Your task to perform on an android device: Add macbook pro to the cart on walmart.com Image 0: 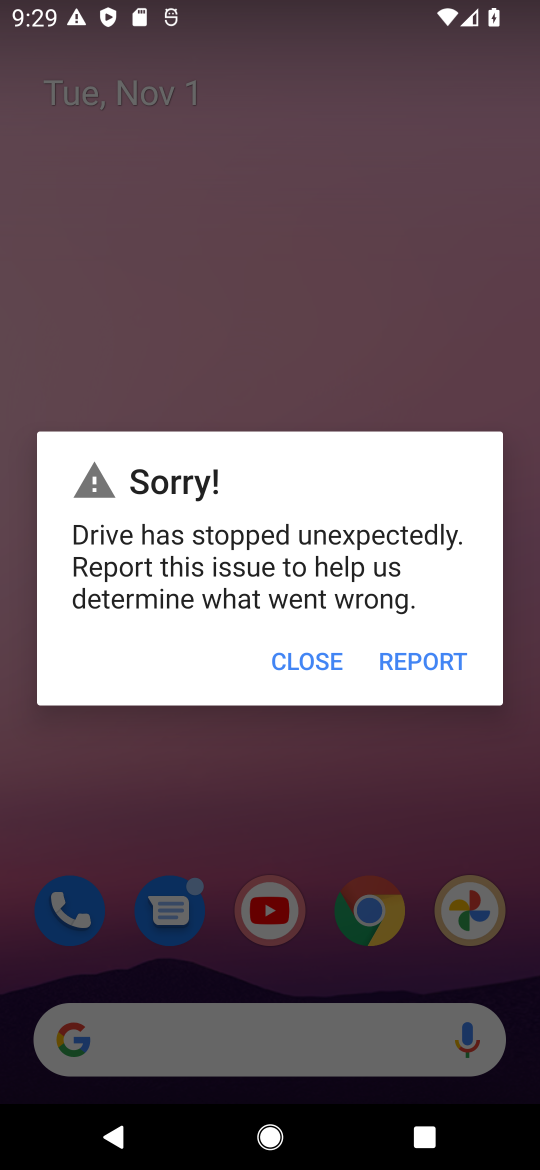
Step 0: press home button
Your task to perform on an android device: Add macbook pro to the cart on walmart.com Image 1: 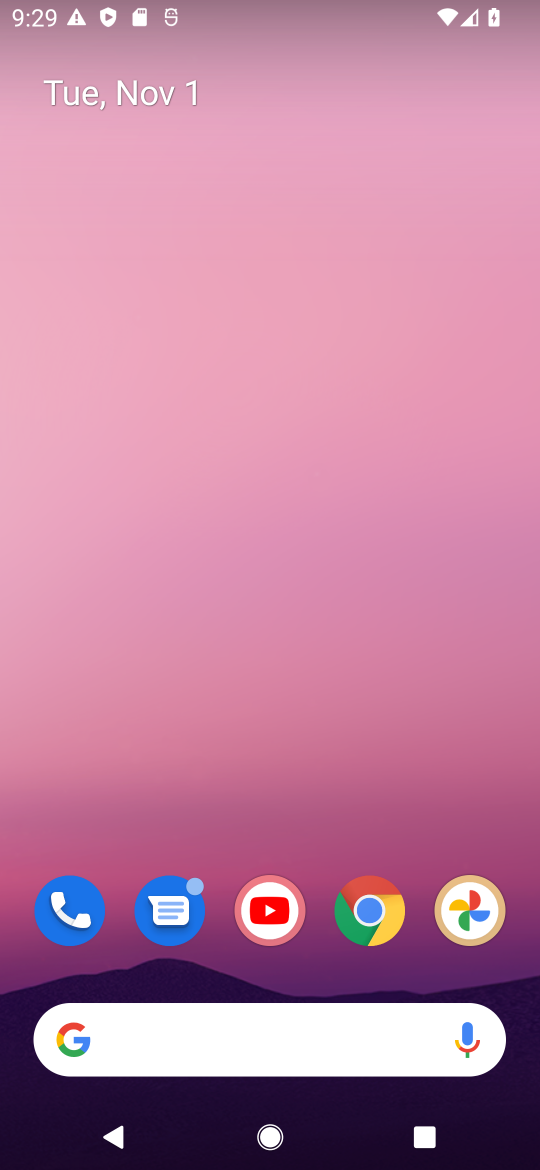
Step 1: click (400, 856)
Your task to perform on an android device: Add macbook pro to the cart on walmart.com Image 2: 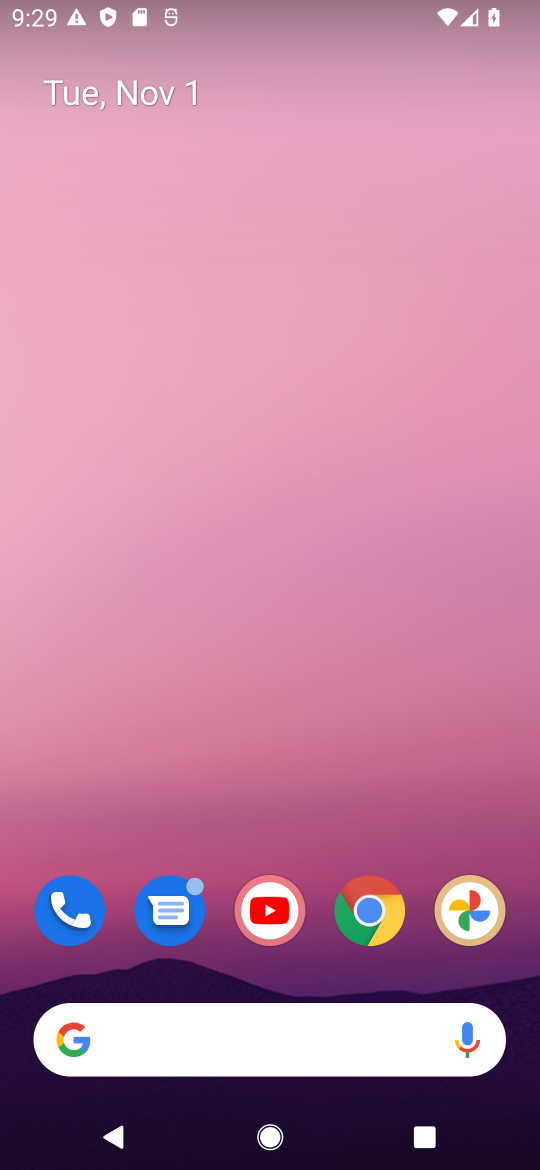
Step 2: click (373, 917)
Your task to perform on an android device: Add macbook pro to the cart on walmart.com Image 3: 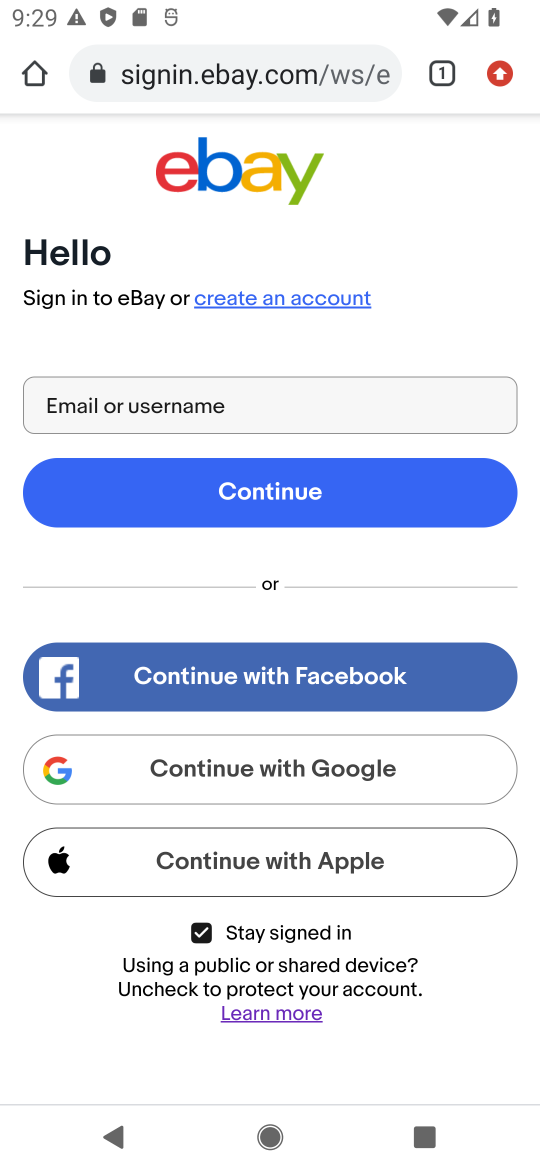
Step 3: click (206, 76)
Your task to perform on an android device: Add macbook pro to the cart on walmart.com Image 4: 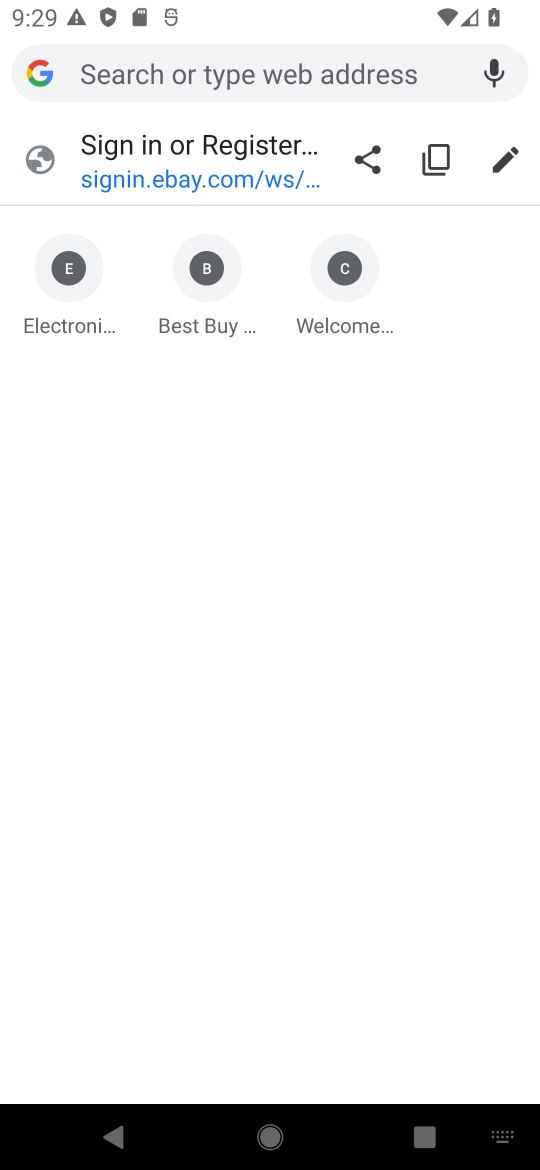
Step 4: type "walmart.com"
Your task to perform on an android device: Add macbook pro to the cart on walmart.com Image 5: 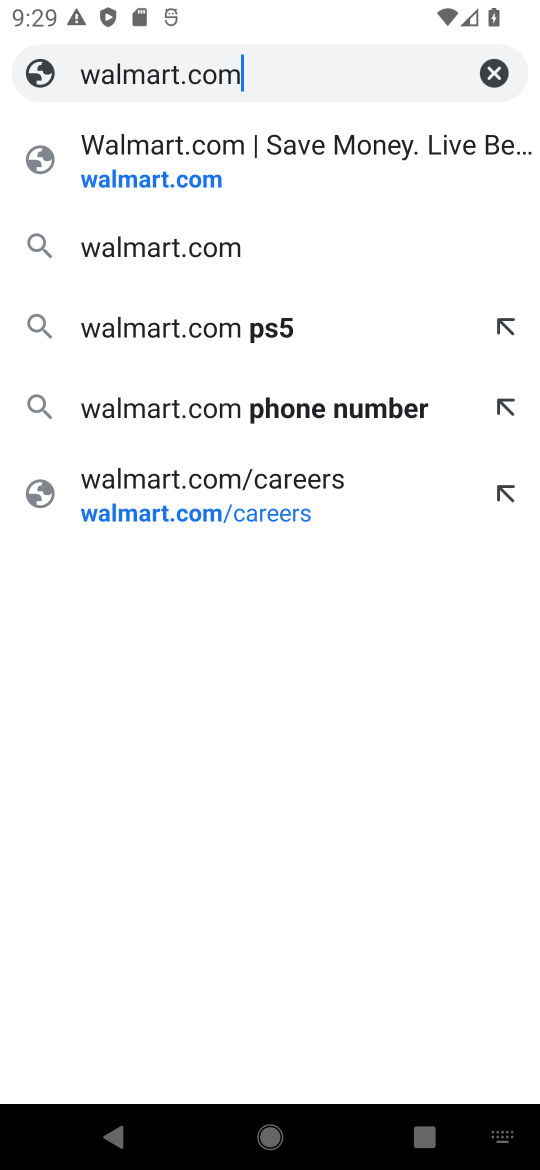
Step 5: click (122, 188)
Your task to perform on an android device: Add macbook pro to the cart on walmart.com Image 6: 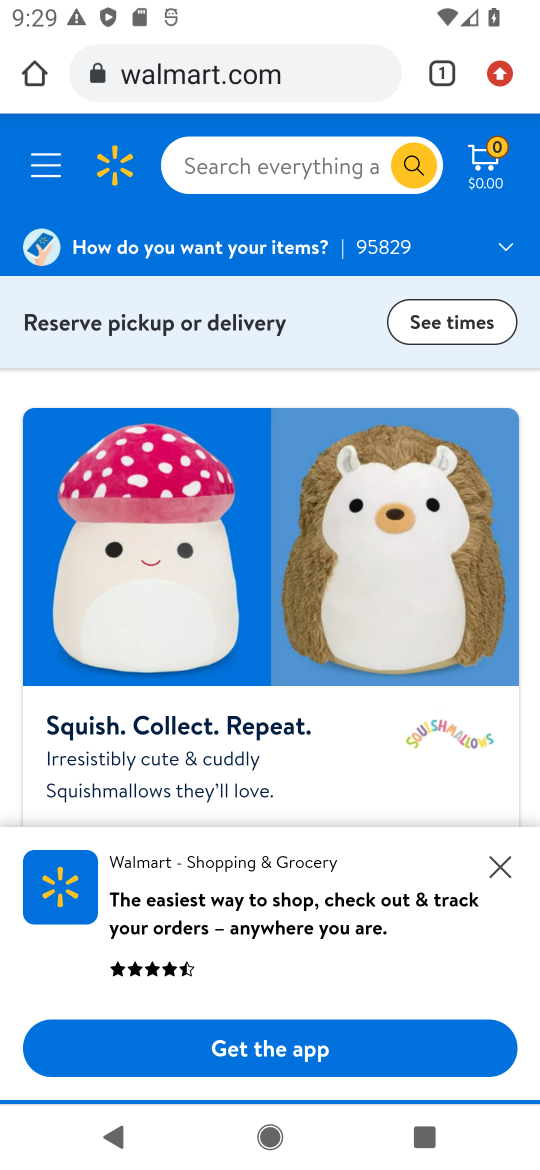
Step 6: click (235, 176)
Your task to perform on an android device: Add macbook pro to the cart on walmart.com Image 7: 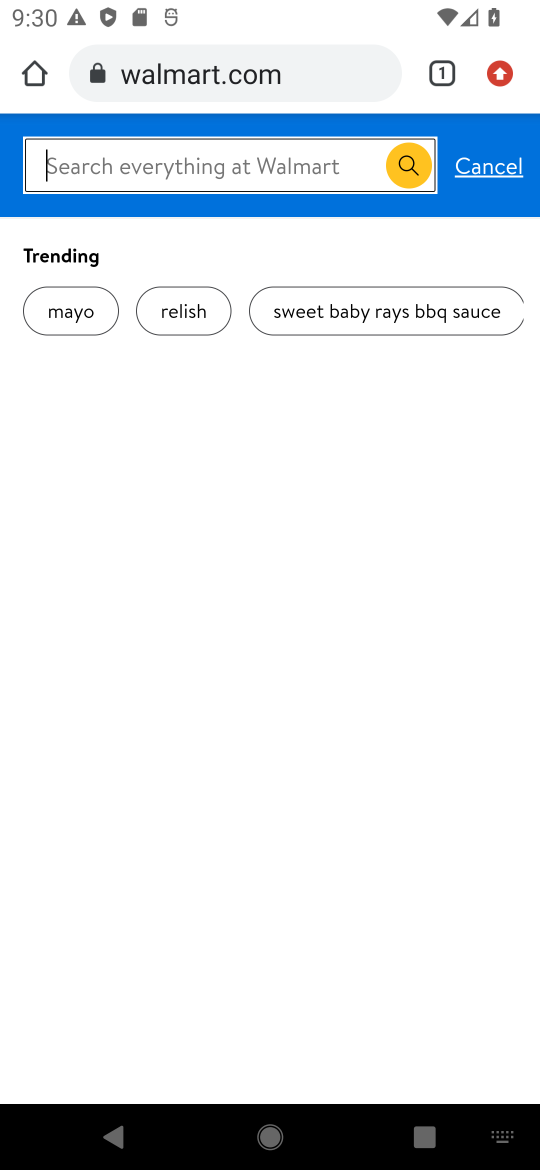
Step 7: type " macbook pro"
Your task to perform on an android device: Add macbook pro to the cart on walmart.com Image 8: 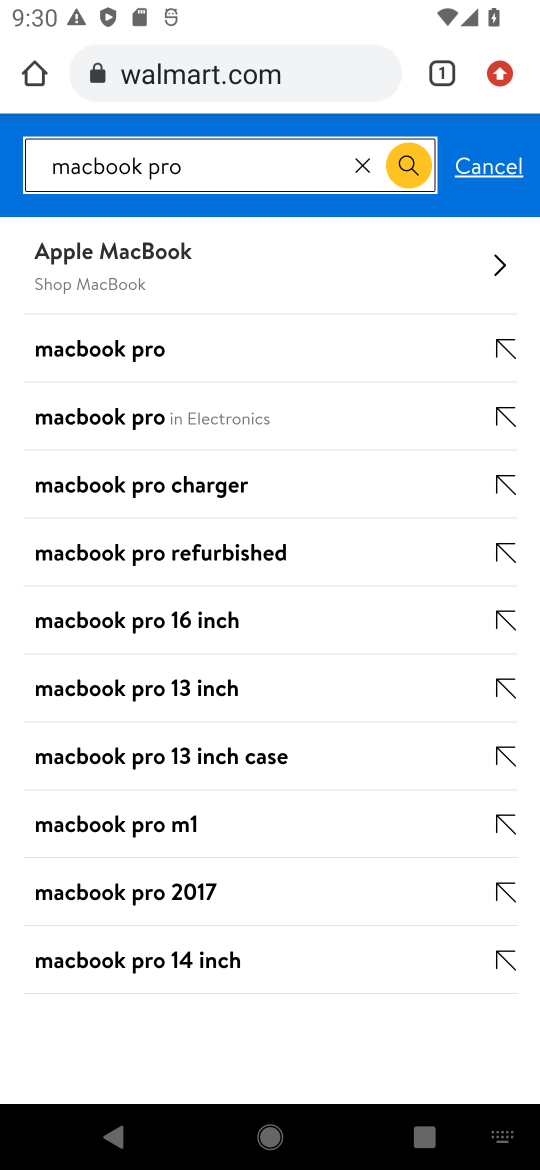
Step 8: click (140, 358)
Your task to perform on an android device: Add macbook pro to the cart on walmart.com Image 9: 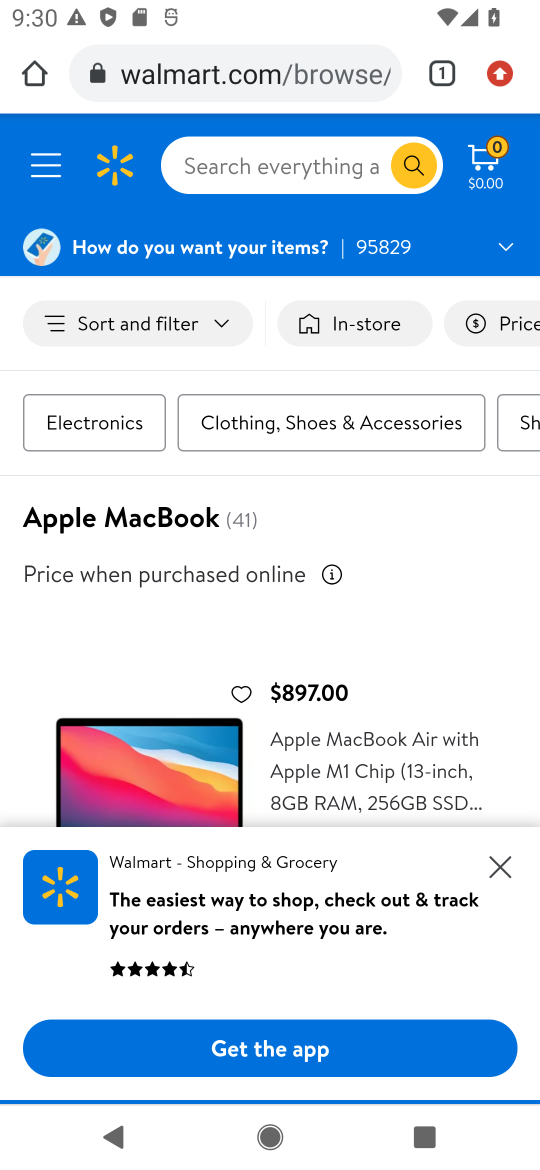
Step 9: click (477, 861)
Your task to perform on an android device: Add macbook pro to the cart on walmart.com Image 10: 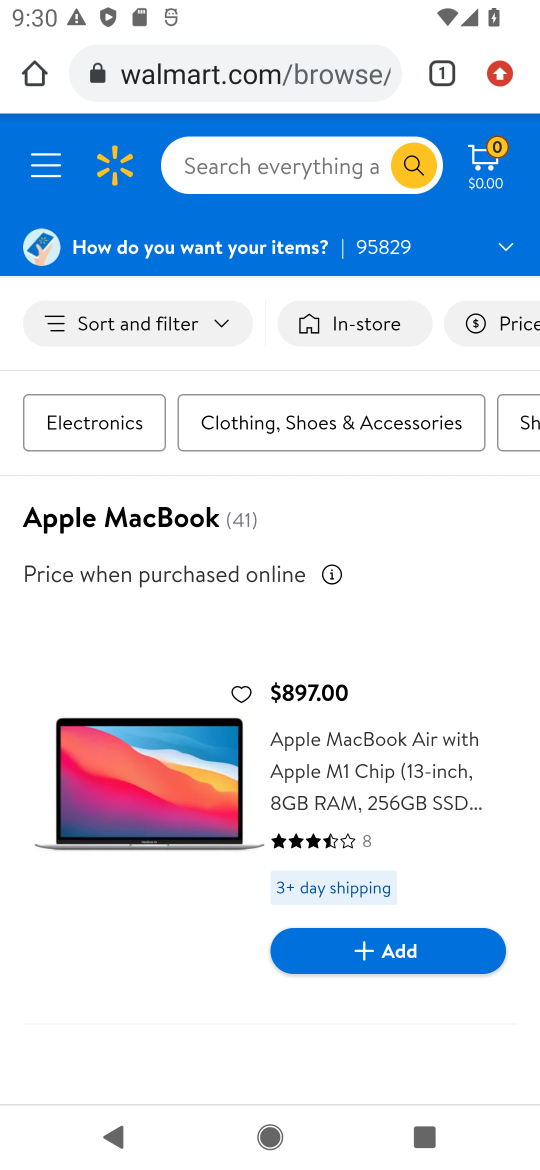
Step 10: drag from (392, 836) to (418, 586)
Your task to perform on an android device: Add macbook pro to the cart on walmart.com Image 11: 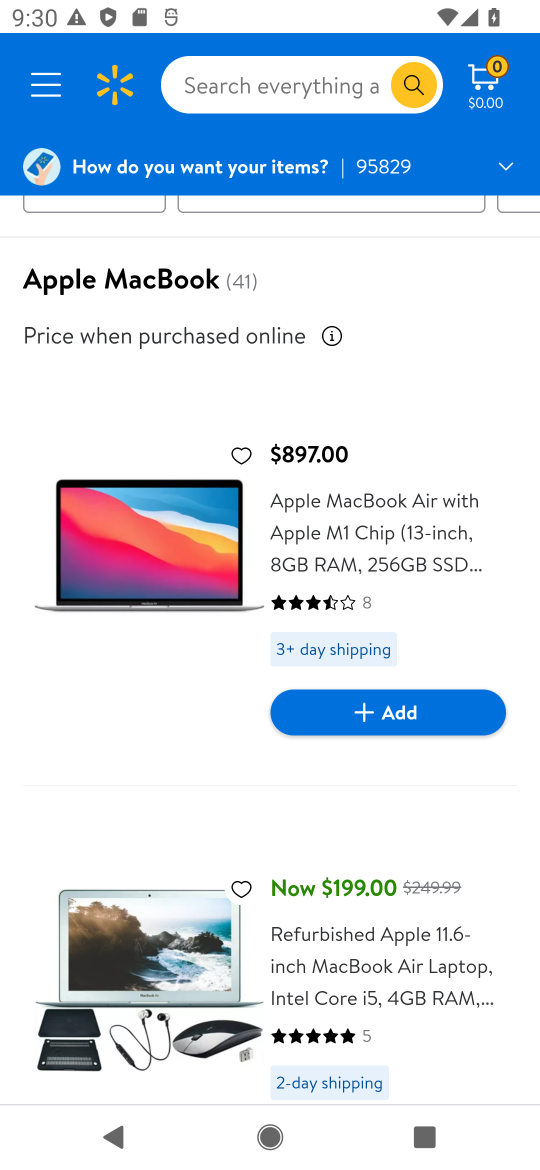
Step 11: click (404, 779)
Your task to perform on an android device: Add macbook pro to the cart on walmart.com Image 12: 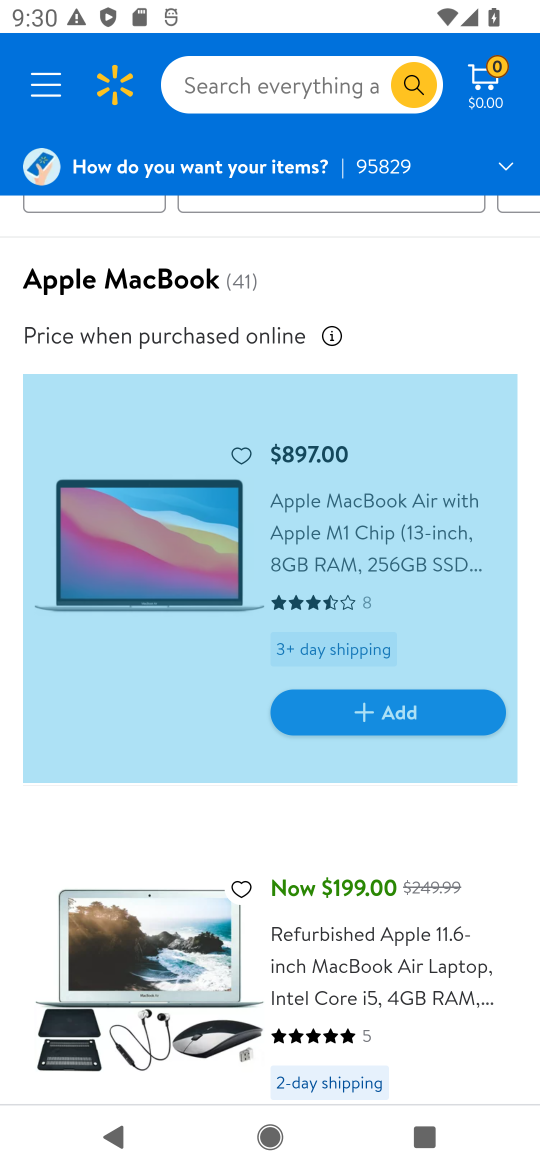
Step 12: click (394, 719)
Your task to perform on an android device: Add macbook pro to the cart on walmart.com Image 13: 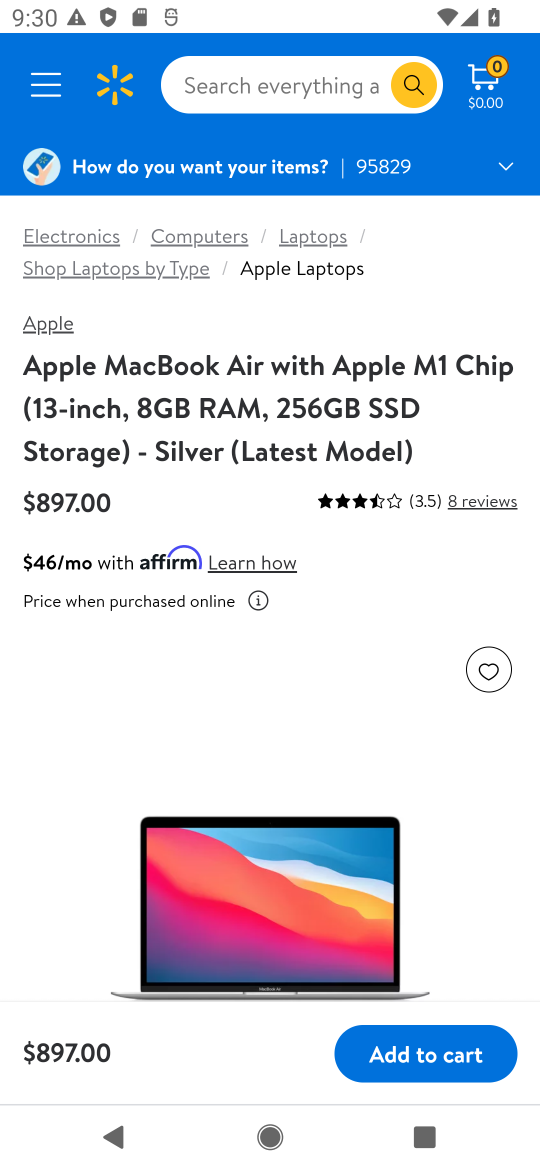
Step 13: drag from (423, 668) to (489, 447)
Your task to perform on an android device: Add macbook pro to the cart on walmart.com Image 14: 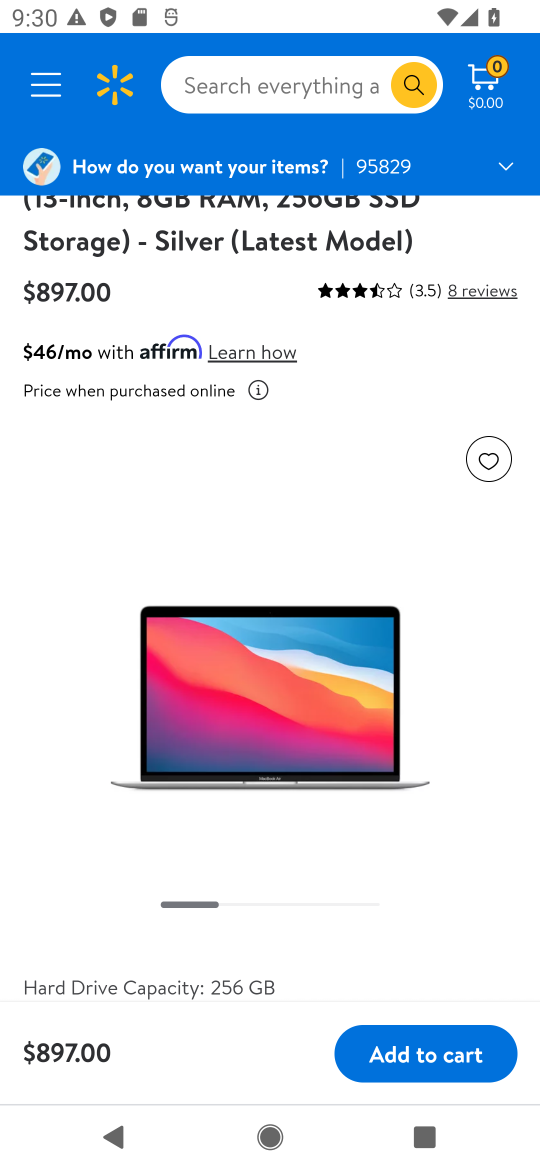
Step 14: click (427, 1064)
Your task to perform on an android device: Add macbook pro to the cart on walmart.com Image 15: 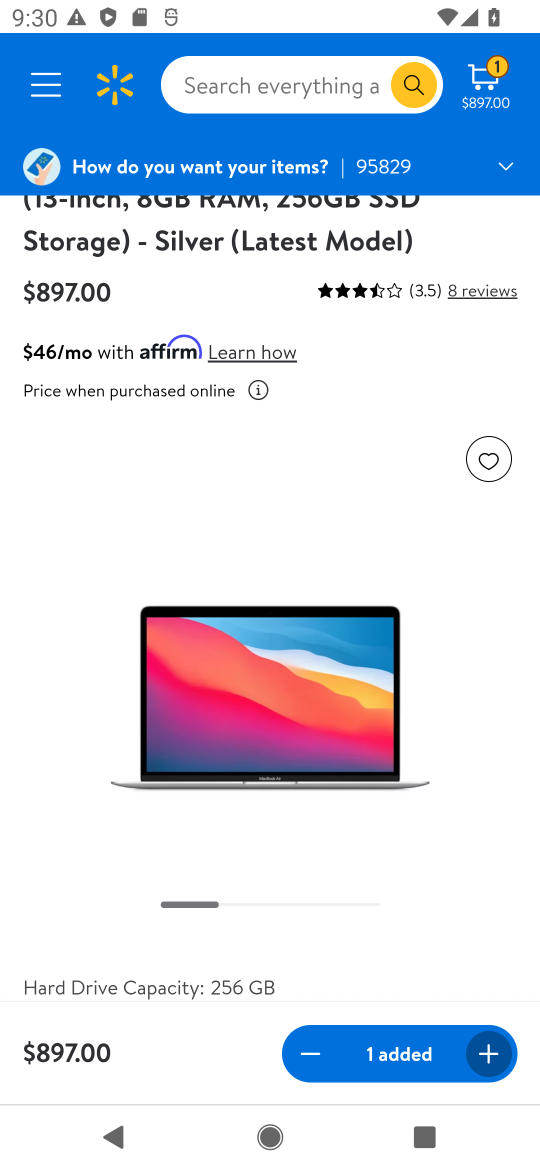
Step 15: task complete